Your task to perform on an android device: Go to ESPN.com Image 0: 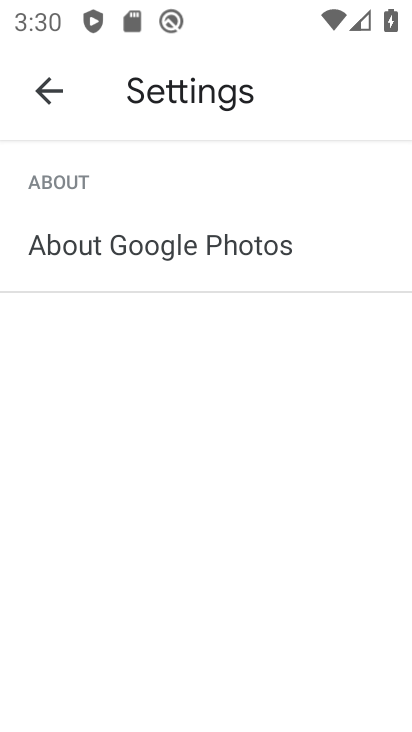
Step 0: press home button
Your task to perform on an android device: Go to ESPN.com Image 1: 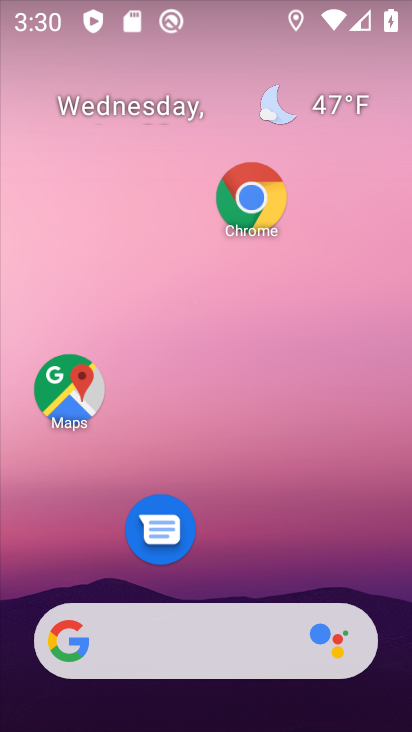
Step 1: click (252, 195)
Your task to perform on an android device: Go to ESPN.com Image 2: 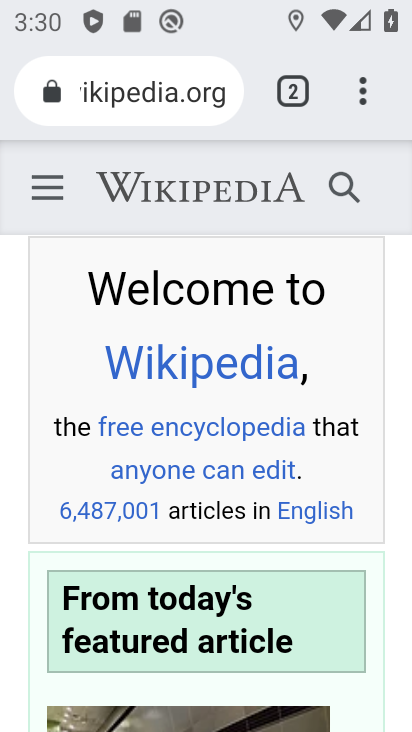
Step 2: click (299, 83)
Your task to perform on an android device: Go to ESPN.com Image 3: 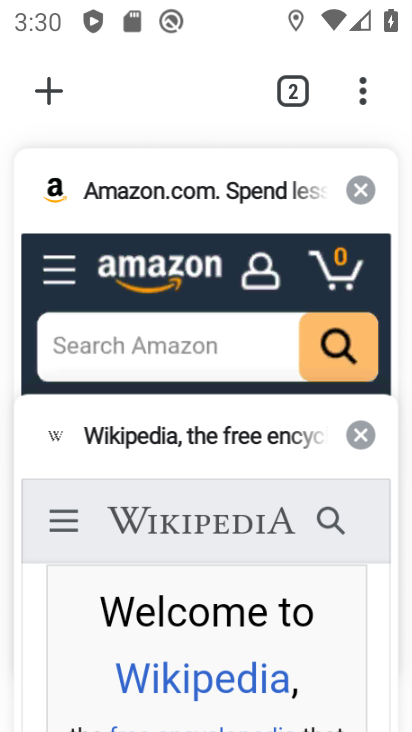
Step 3: click (39, 86)
Your task to perform on an android device: Go to ESPN.com Image 4: 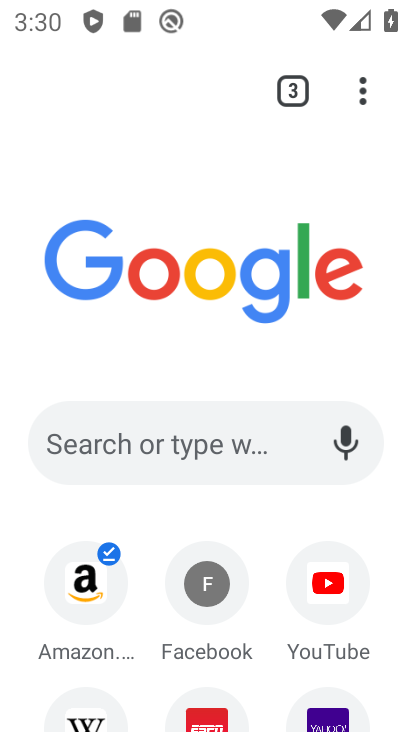
Step 4: click (210, 716)
Your task to perform on an android device: Go to ESPN.com Image 5: 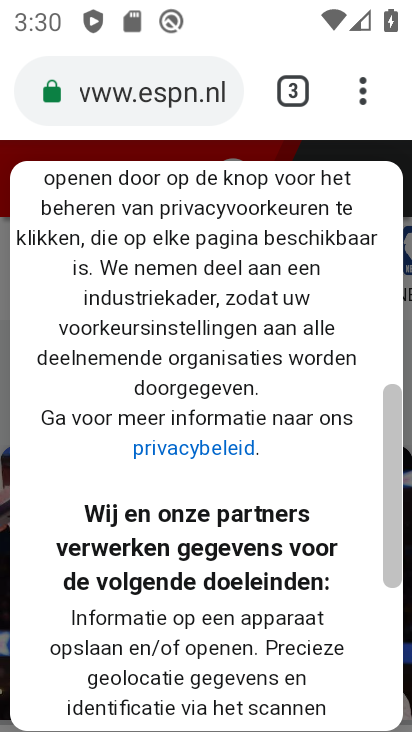
Step 5: task complete